Your task to perform on an android device: open sync settings in chrome Image 0: 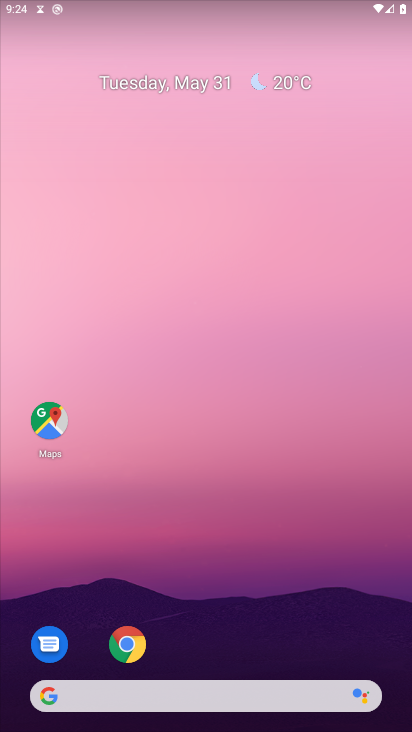
Step 0: press home button
Your task to perform on an android device: open sync settings in chrome Image 1: 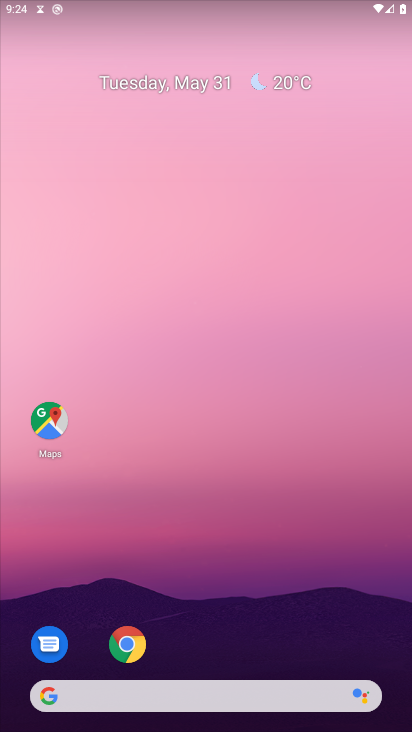
Step 1: click (128, 637)
Your task to perform on an android device: open sync settings in chrome Image 2: 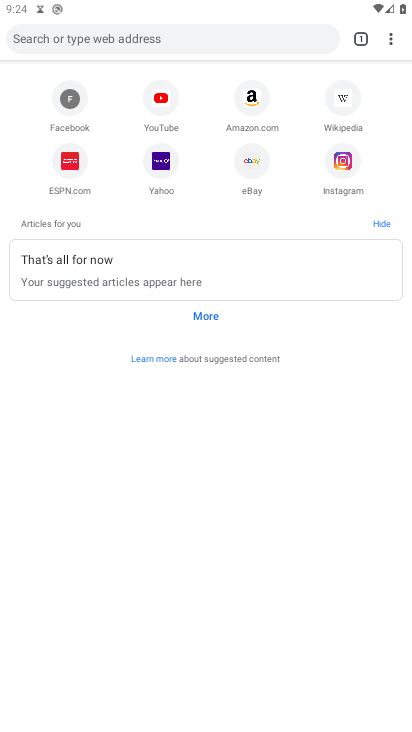
Step 2: click (390, 42)
Your task to perform on an android device: open sync settings in chrome Image 3: 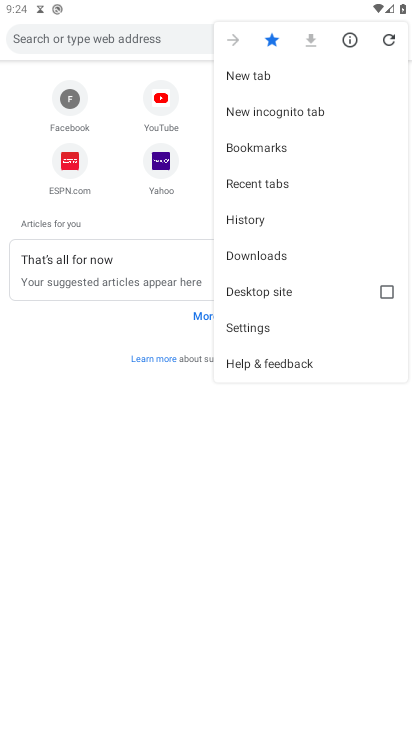
Step 3: click (286, 320)
Your task to perform on an android device: open sync settings in chrome Image 4: 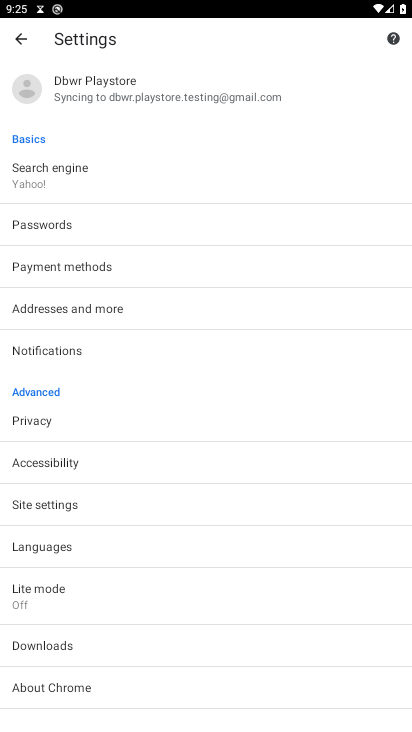
Step 4: click (97, 81)
Your task to perform on an android device: open sync settings in chrome Image 5: 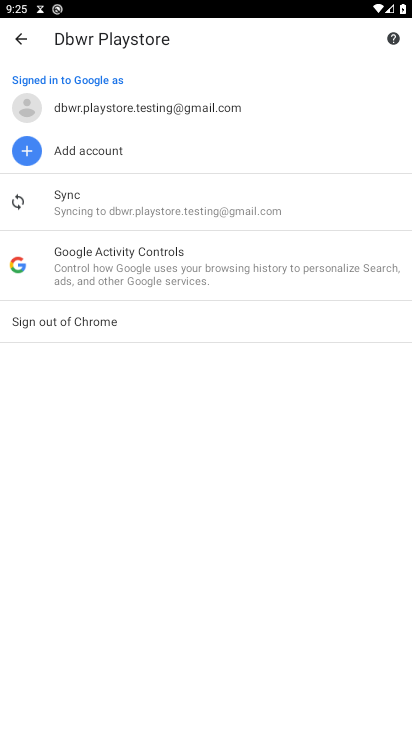
Step 5: click (121, 200)
Your task to perform on an android device: open sync settings in chrome Image 6: 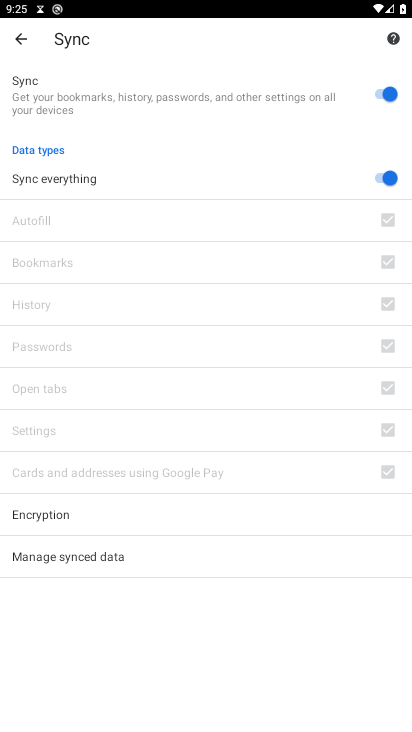
Step 6: task complete